Your task to perform on an android device: change keyboard looks Image 0: 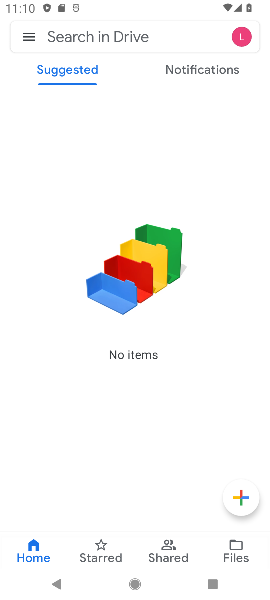
Step 0: press back button
Your task to perform on an android device: change keyboard looks Image 1: 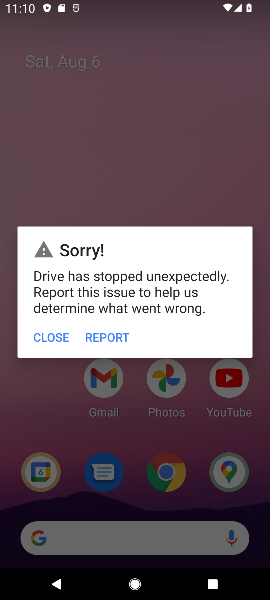
Step 1: click (39, 352)
Your task to perform on an android device: change keyboard looks Image 2: 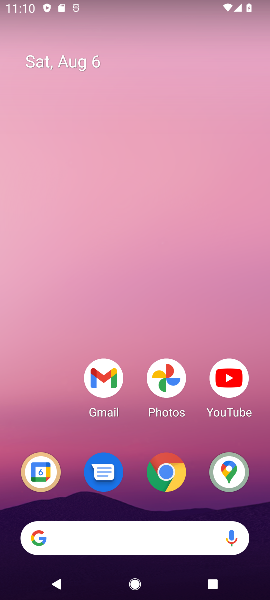
Step 2: drag from (123, 414) to (56, 111)
Your task to perform on an android device: change keyboard looks Image 3: 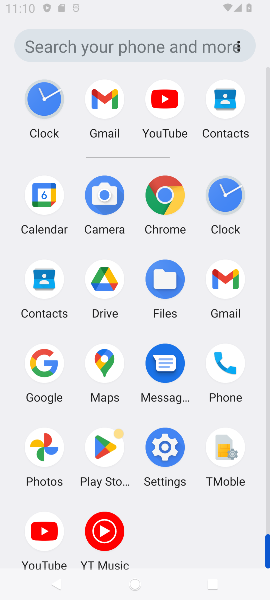
Step 3: drag from (129, 440) to (67, 101)
Your task to perform on an android device: change keyboard looks Image 4: 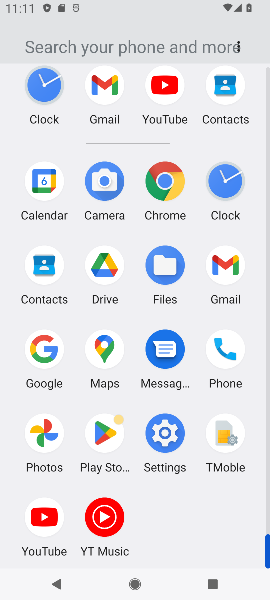
Step 4: click (157, 432)
Your task to perform on an android device: change keyboard looks Image 5: 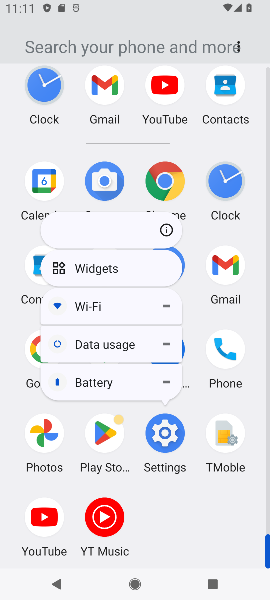
Step 5: click (157, 432)
Your task to perform on an android device: change keyboard looks Image 6: 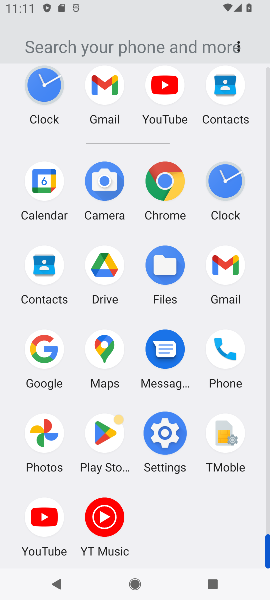
Step 6: click (158, 433)
Your task to perform on an android device: change keyboard looks Image 7: 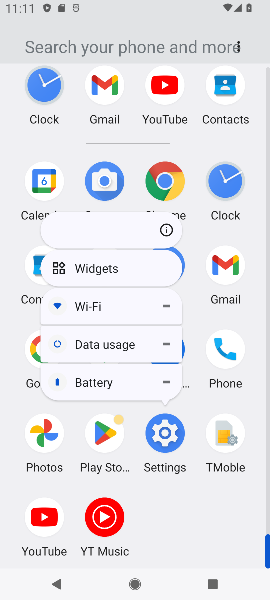
Step 7: click (158, 433)
Your task to perform on an android device: change keyboard looks Image 8: 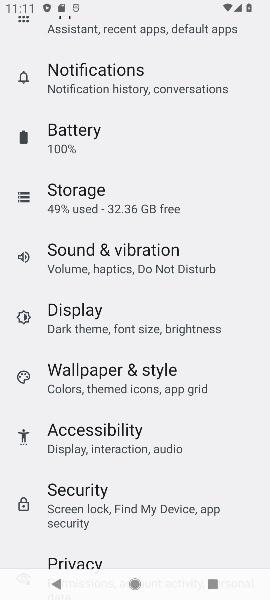
Step 8: drag from (73, 146) to (110, 452)
Your task to perform on an android device: change keyboard looks Image 9: 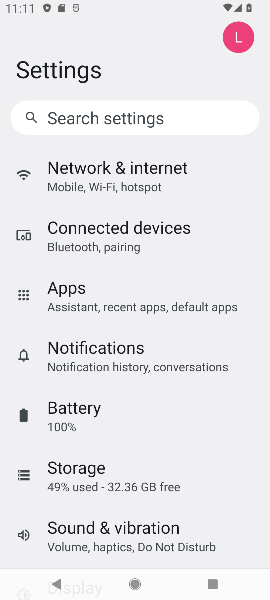
Step 9: drag from (87, 235) to (132, 451)
Your task to perform on an android device: change keyboard looks Image 10: 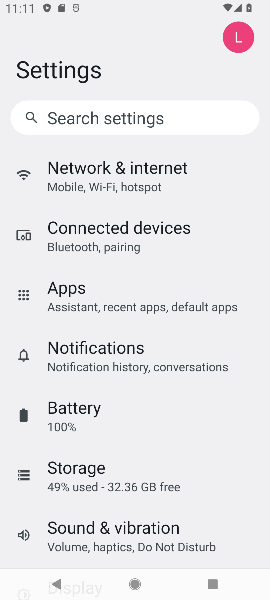
Step 10: drag from (73, 216) to (106, 397)
Your task to perform on an android device: change keyboard looks Image 11: 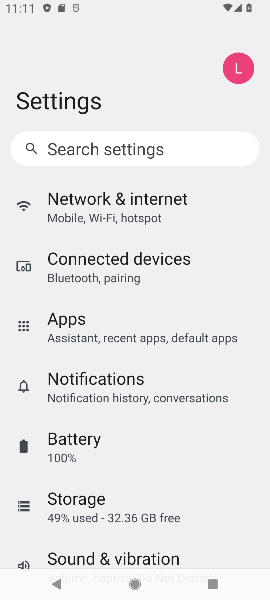
Step 11: drag from (116, 498) to (104, 275)
Your task to perform on an android device: change keyboard looks Image 12: 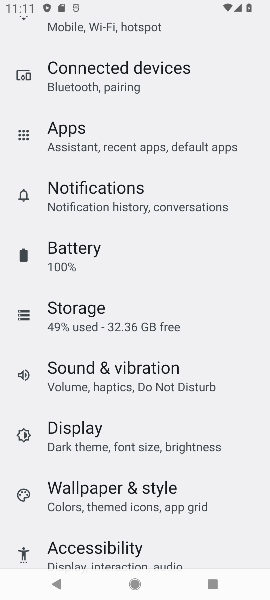
Step 12: drag from (155, 461) to (139, 240)
Your task to perform on an android device: change keyboard looks Image 13: 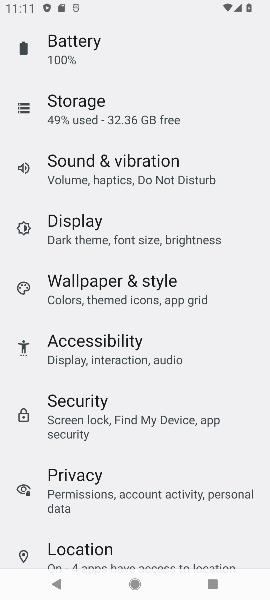
Step 13: drag from (160, 441) to (144, 247)
Your task to perform on an android device: change keyboard looks Image 14: 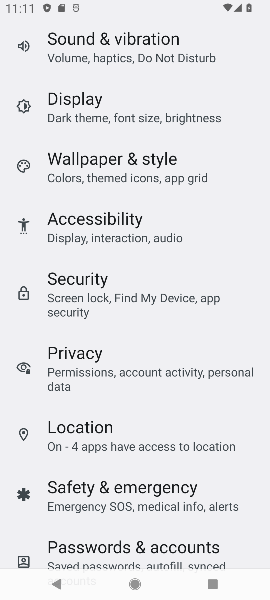
Step 14: drag from (155, 469) to (120, 153)
Your task to perform on an android device: change keyboard looks Image 15: 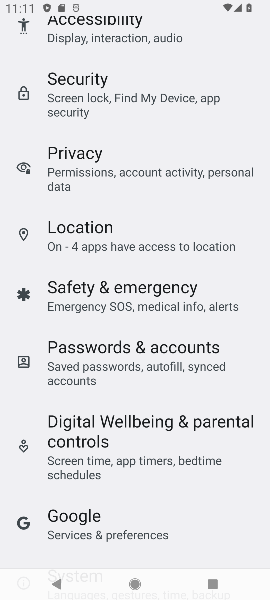
Step 15: drag from (215, 496) to (168, 196)
Your task to perform on an android device: change keyboard looks Image 16: 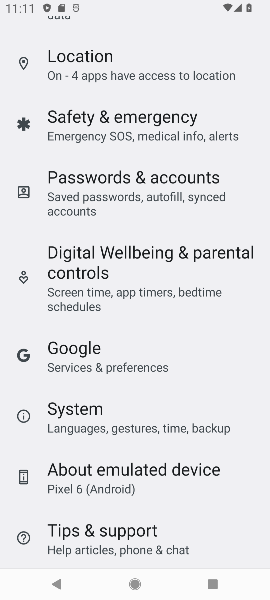
Step 16: drag from (172, 322) to (163, 220)
Your task to perform on an android device: change keyboard looks Image 17: 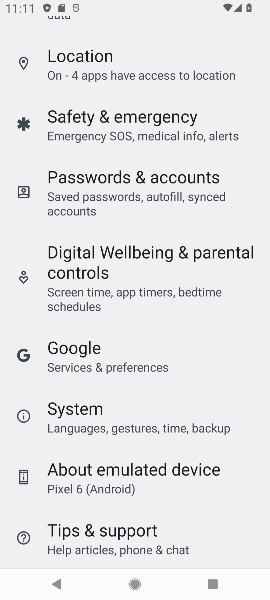
Step 17: drag from (181, 428) to (181, 234)
Your task to perform on an android device: change keyboard looks Image 18: 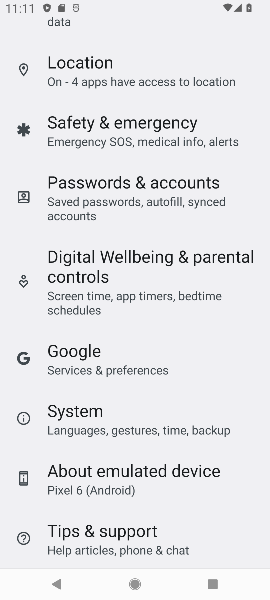
Step 18: click (93, 407)
Your task to perform on an android device: change keyboard looks Image 19: 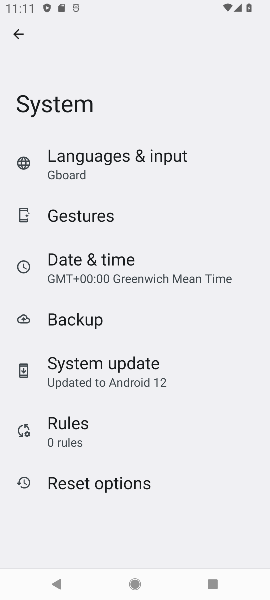
Step 19: click (80, 181)
Your task to perform on an android device: change keyboard looks Image 20: 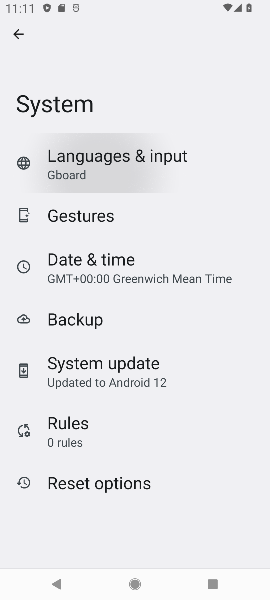
Step 20: click (81, 180)
Your task to perform on an android device: change keyboard looks Image 21: 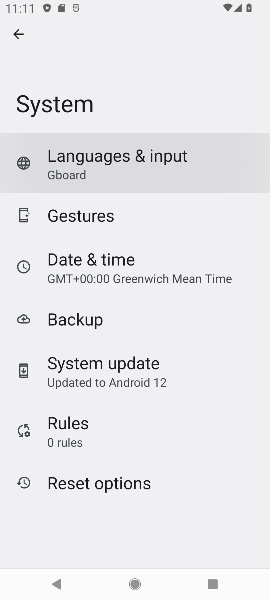
Step 21: click (81, 180)
Your task to perform on an android device: change keyboard looks Image 22: 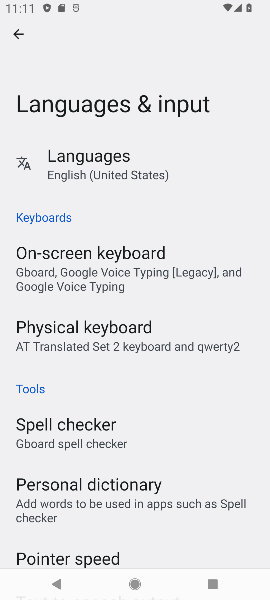
Step 22: click (46, 269)
Your task to perform on an android device: change keyboard looks Image 23: 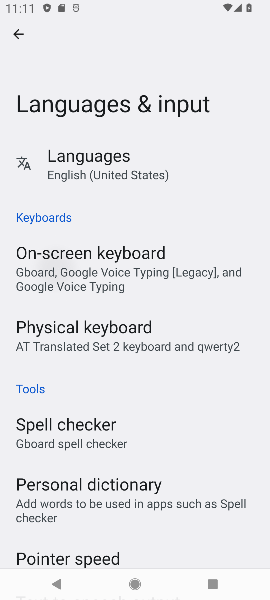
Step 23: click (46, 268)
Your task to perform on an android device: change keyboard looks Image 24: 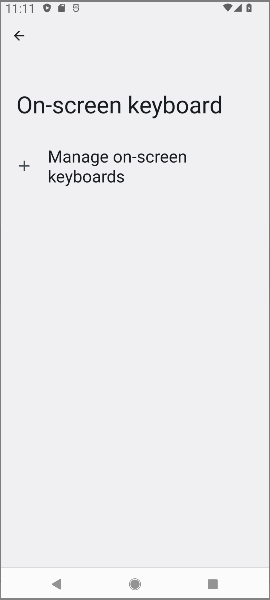
Step 24: click (45, 269)
Your task to perform on an android device: change keyboard looks Image 25: 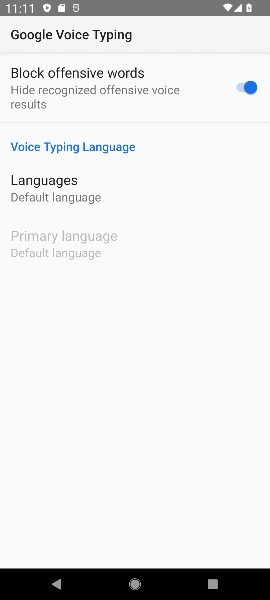
Step 25: press back button
Your task to perform on an android device: change keyboard looks Image 26: 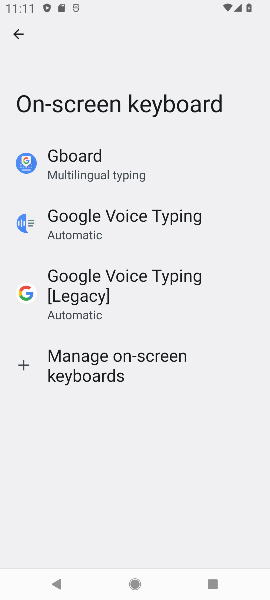
Step 26: click (94, 170)
Your task to perform on an android device: change keyboard looks Image 27: 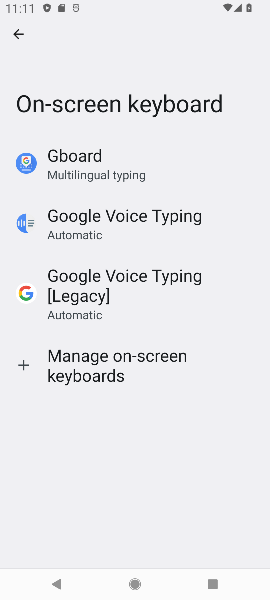
Step 27: click (94, 170)
Your task to perform on an android device: change keyboard looks Image 28: 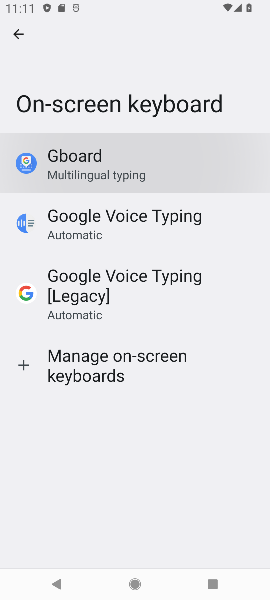
Step 28: click (94, 170)
Your task to perform on an android device: change keyboard looks Image 29: 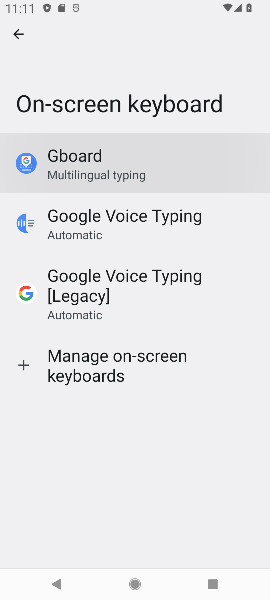
Step 29: click (94, 170)
Your task to perform on an android device: change keyboard looks Image 30: 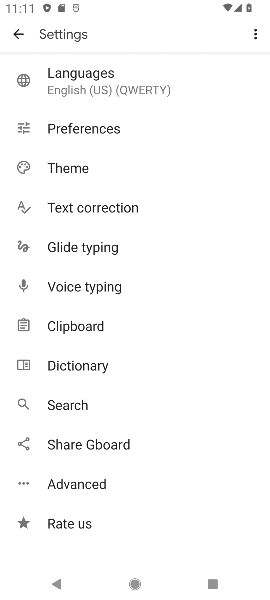
Step 30: click (68, 164)
Your task to perform on an android device: change keyboard looks Image 31: 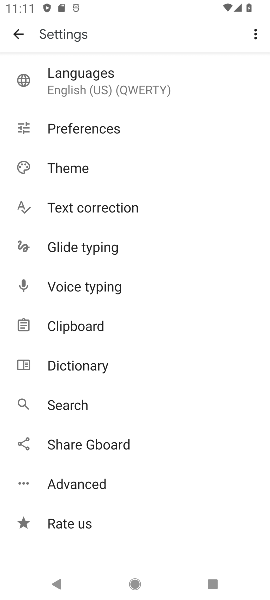
Step 31: click (68, 165)
Your task to perform on an android device: change keyboard looks Image 32: 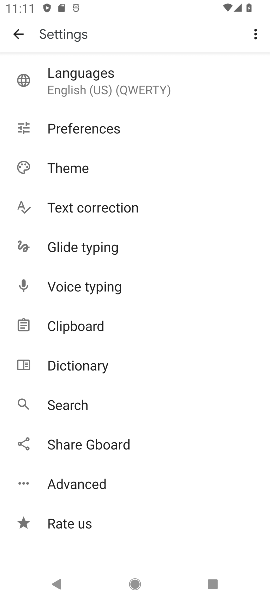
Step 32: click (68, 166)
Your task to perform on an android device: change keyboard looks Image 33: 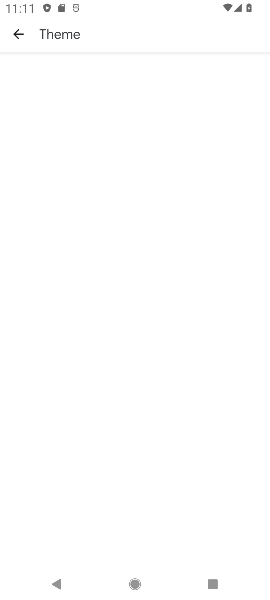
Step 33: click (68, 166)
Your task to perform on an android device: change keyboard looks Image 34: 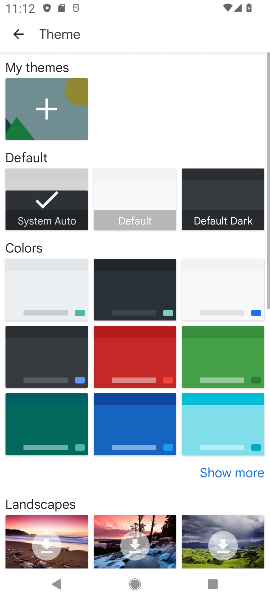
Step 34: click (141, 414)
Your task to perform on an android device: change keyboard looks Image 35: 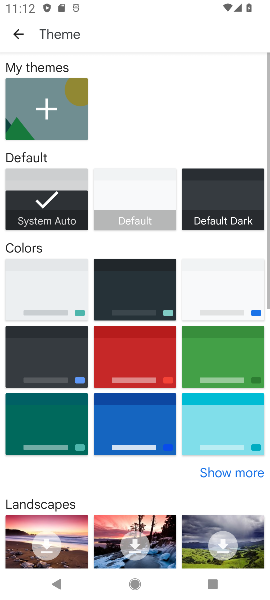
Step 35: click (142, 412)
Your task to perform on an android device: change keyboard looks Image 36: 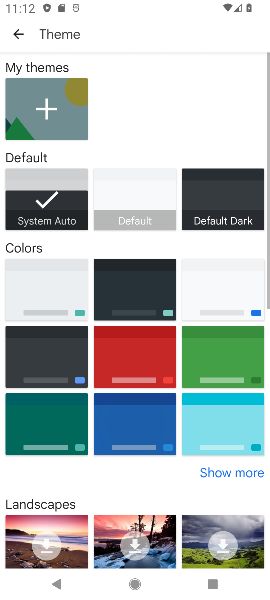
Step 36: click (142, 412)
Your task to perform on an android device: change keyboard looks Image 37: 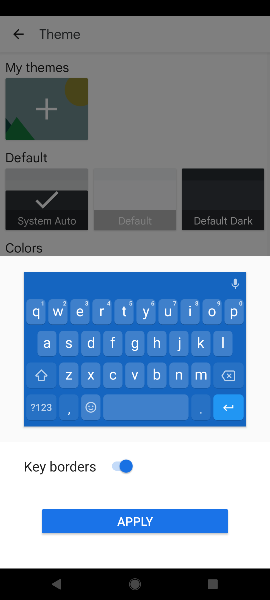
Step 37: click (173, 518)
Your task to perform on an android device: change keyboard looks Image 38: 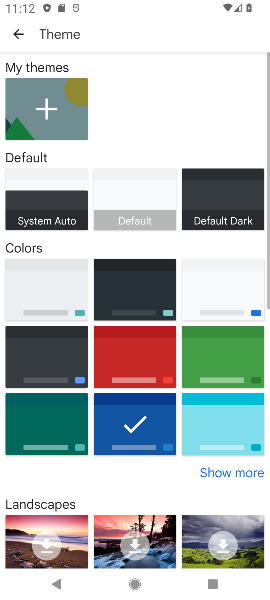
Step 38: task complete